Your task to perform on an android device: Open calendar and show me the third week of next month Image 0: 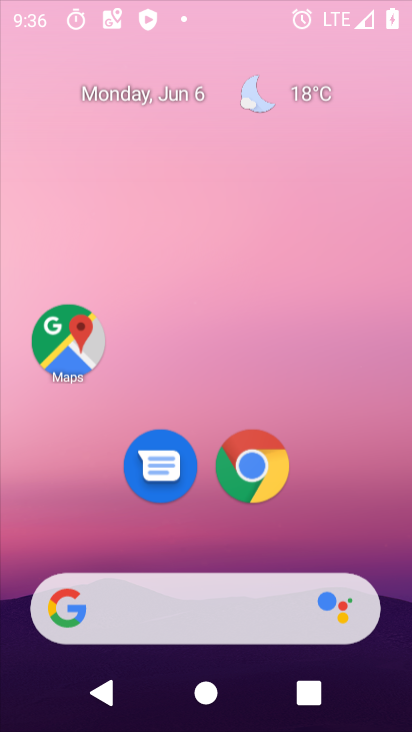
Step 0: drag from (210, 511) to (293, 196)
Your task to perform on an android device: Open calendar and show me the third week of next month Image 1: 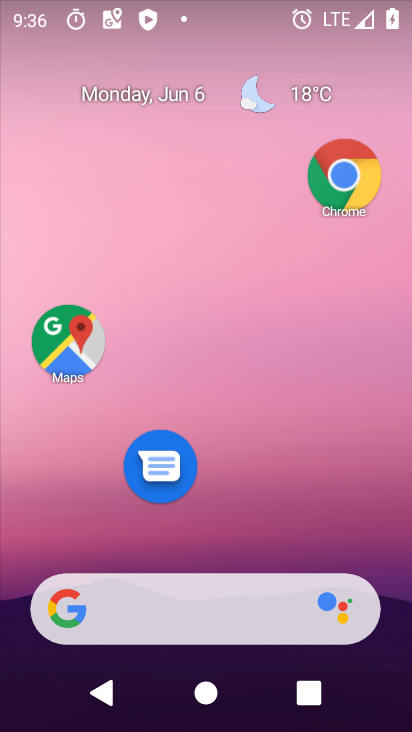
Step 1: drag from (204, 554) to (278, 60)
Your task to perform on an android device: Open calendar and show me the third week of next month Image 2: 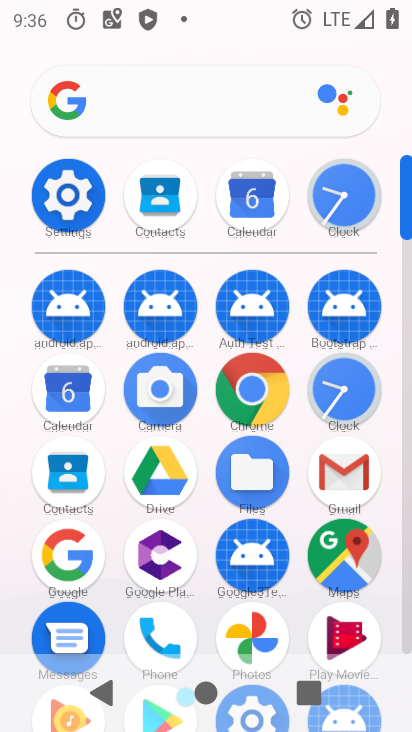
Step 2: click (72, 383)
Your task to perform on an android device: Open calendar and show me the third week of next month Image 3: 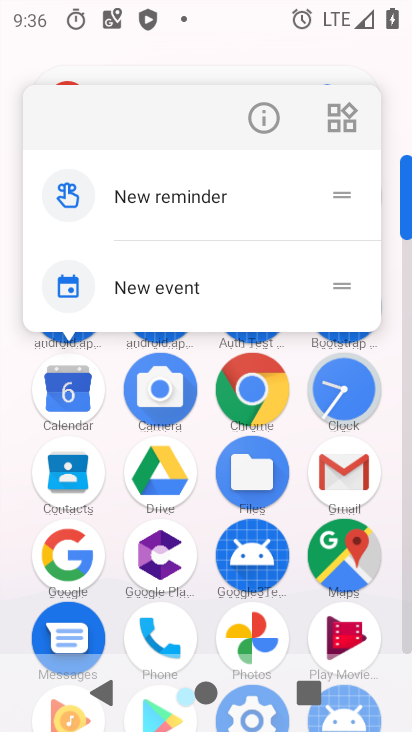
Step 3: click (261, 124)
Your task to perform on an android device: Open calendar and show me the third week of next month Image 4: 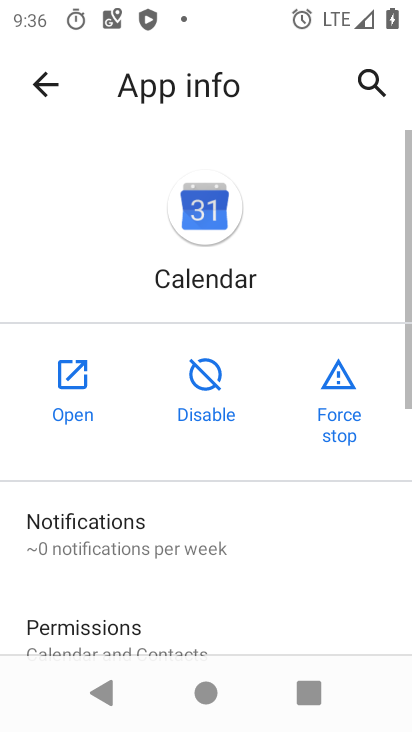
Step 4: click (78, 396)
Your task to perform on an android device: Open calendar and show me the third week of next month Image 5: 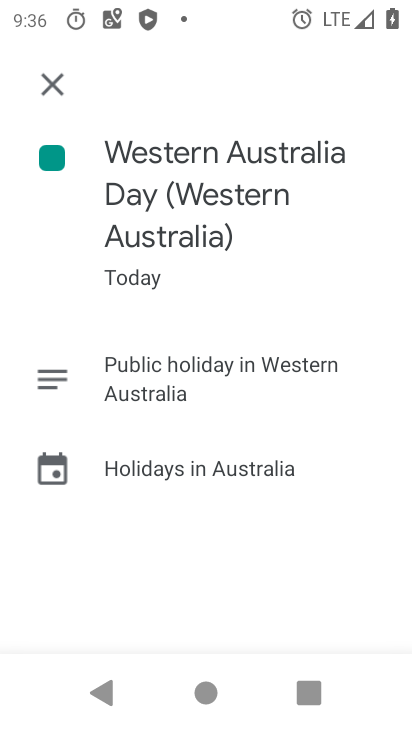
Step 5: click (43, 90)
Your task to perform on an android device: Open calendar and show me the third week of next month Image 6: 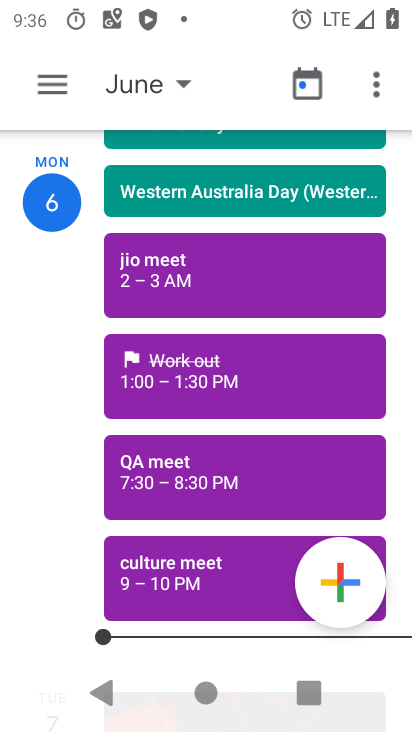
Step 6: click (120, 95)
Your task to perform on an android device: Open calendar and show me the third week of next month Image 7: 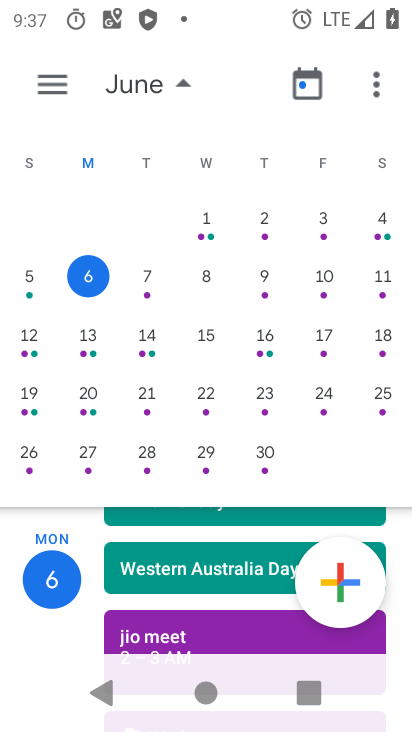
Step 7: drag from (328, 287) to (26, 307)
Your task to perform on an android device: Open calendar and show me the third week of next month Image 8: 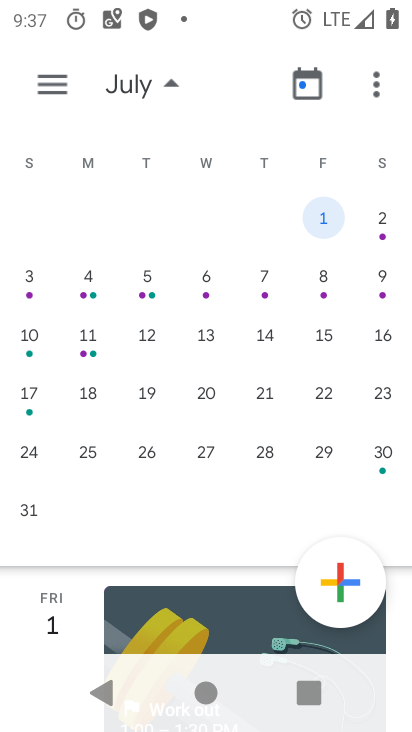
Step 8: click (263, 341)
Your task to perform on an android device: Open calendar and show me the third week of next month Image 9: 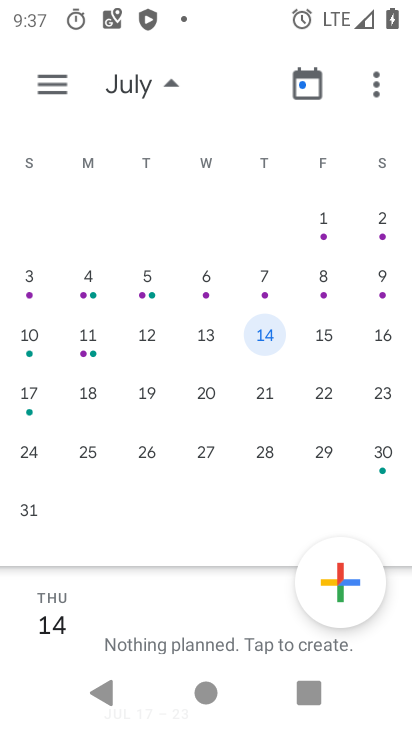
Step 9: task complete